Your task to perform on an android device: Search for pizza restaurants on Maps Image 0: 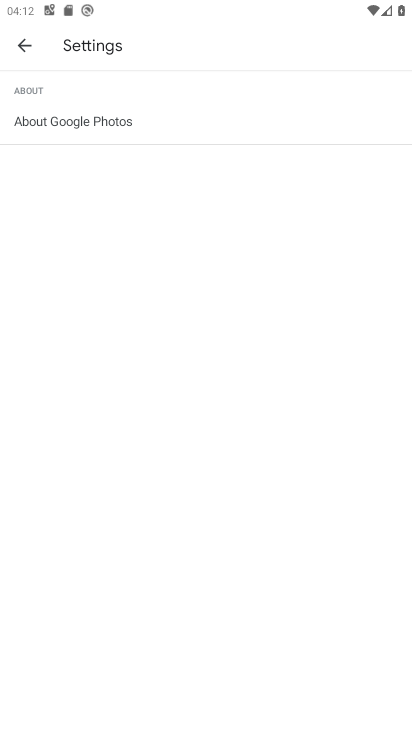
Step 0: press home button
Your task to perform on an android device: Search for pizza restaurants on Maps Image 1: 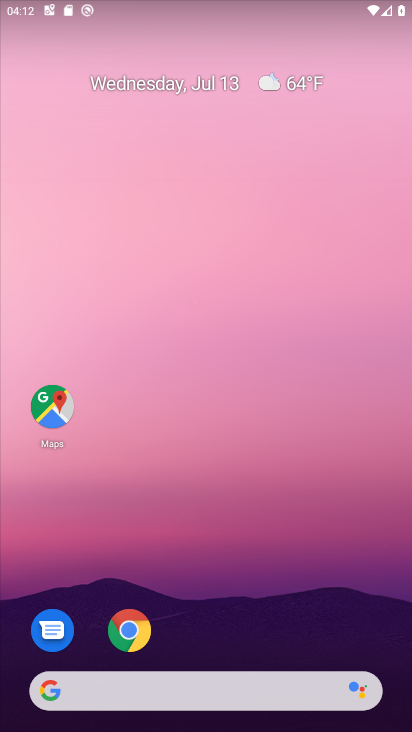
Step 1: click (37, 404)
Your task to perform on an android device: Search for pizza restaurants on Maps Image 2: 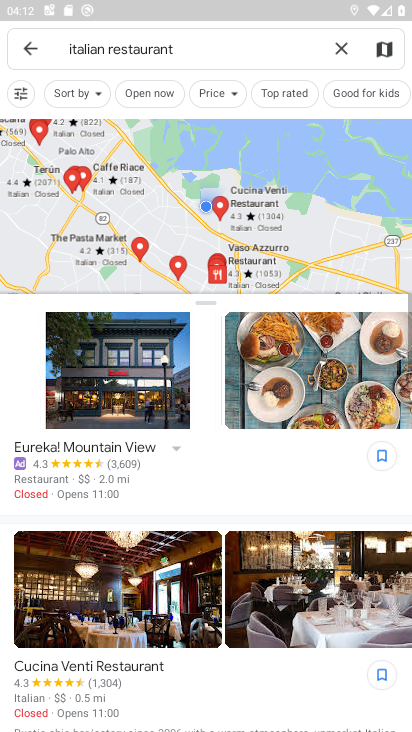
Step 2: click (344, 45)
Your task to perform on an android device: Search for pizza restaurants on Maps Image 3: 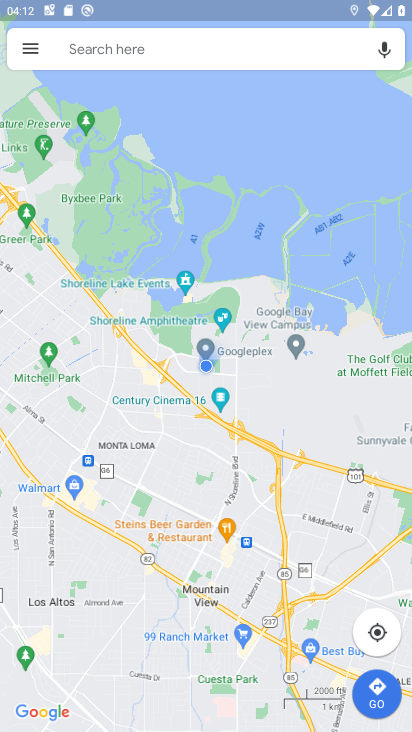
Step 3: click (272, 48)
Your task to perform on an android device: Search for pizza restaurants on Maps Image 4: 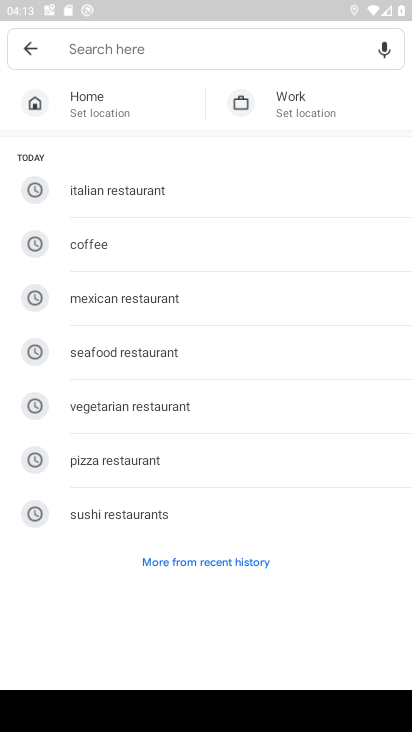
Step 4: click (109, 445)
Your task to perform on an android device: Search for pizza restaurants on Maps Image 5: 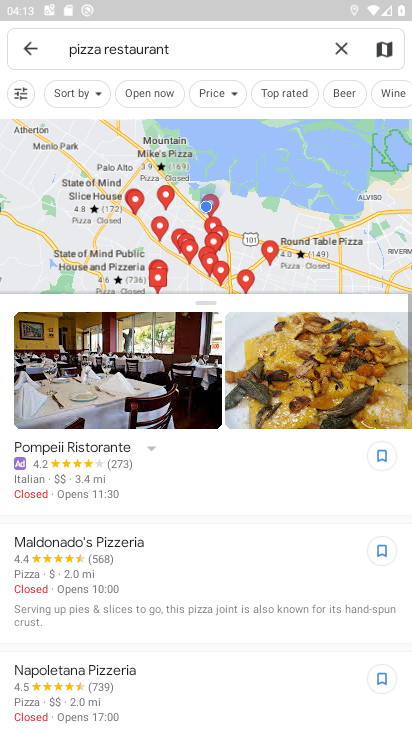
Step 5: task complete